Your task to perform on an android device: Open Chrome and go to settings Image 0: 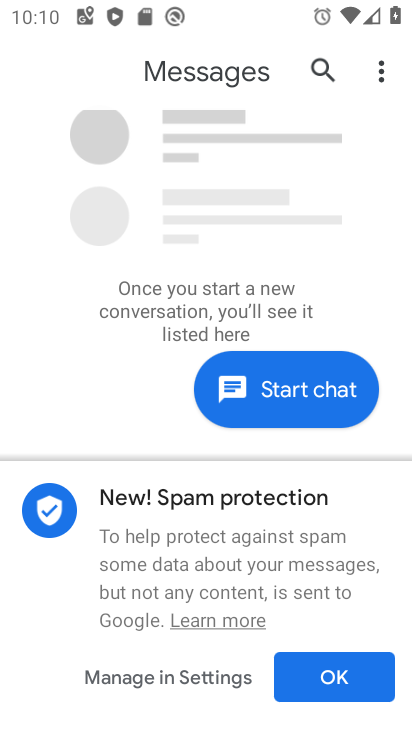
Step 0: drag from (216, 578) to (216, 257)
Your task to perform on an android device: Open Chrome and go to settings Image 1: 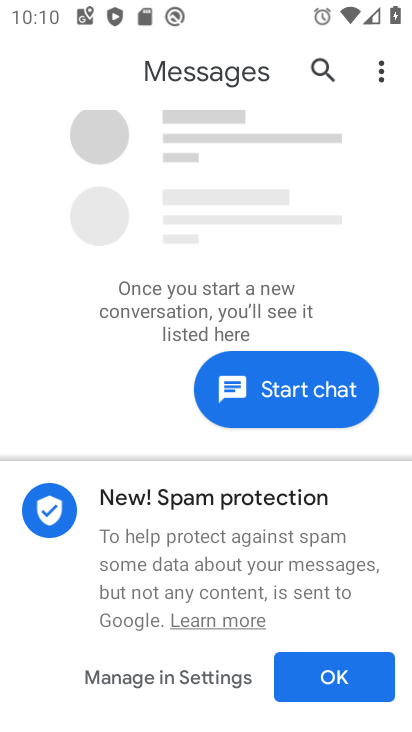
Step 1: press home button
Your task to perform on an android device: Open Chrome and go to settings Image 2: 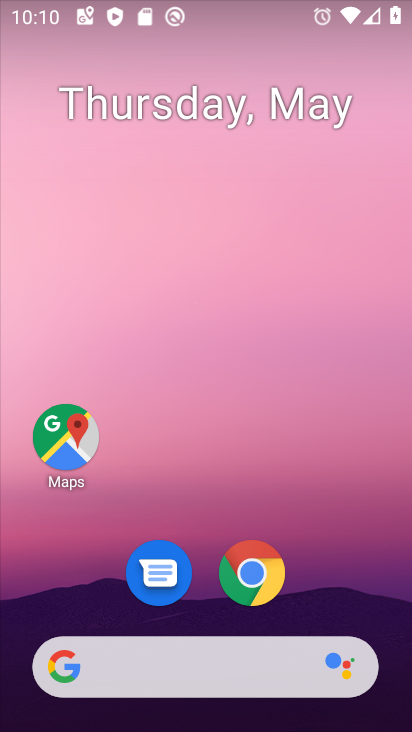
Step 2: click (256, 591)
Your task to perform on an android device: Open Chrome and go to settings Image 3: 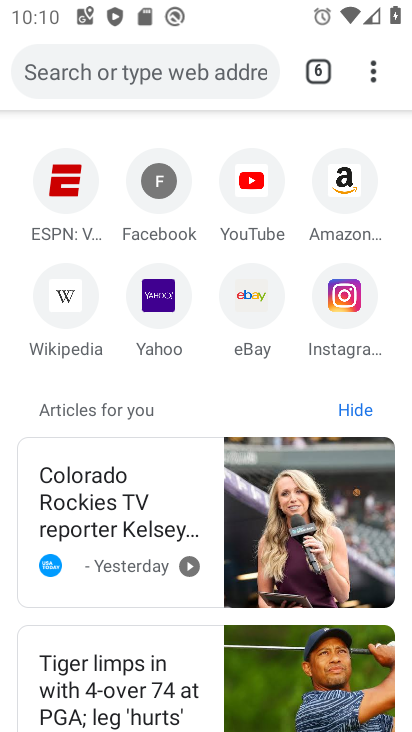
Step 3: click (364, 66)
Your task to perform on an android device: Open Chrome and go to settings Image 4: 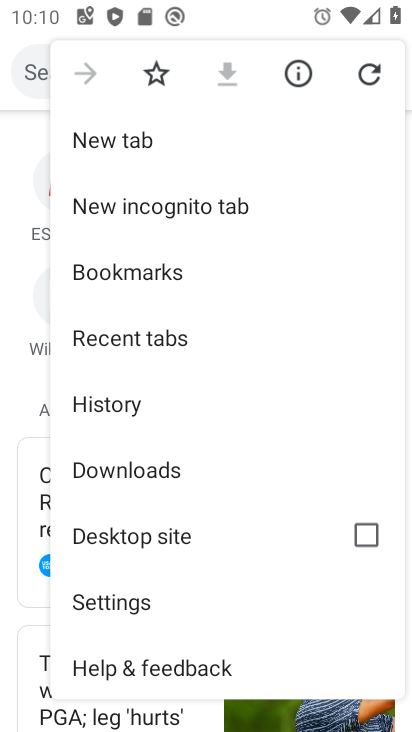
Step 4: click (162, 594)
Your task to perform on an android device: Open Chrome and go to settings Image 5: 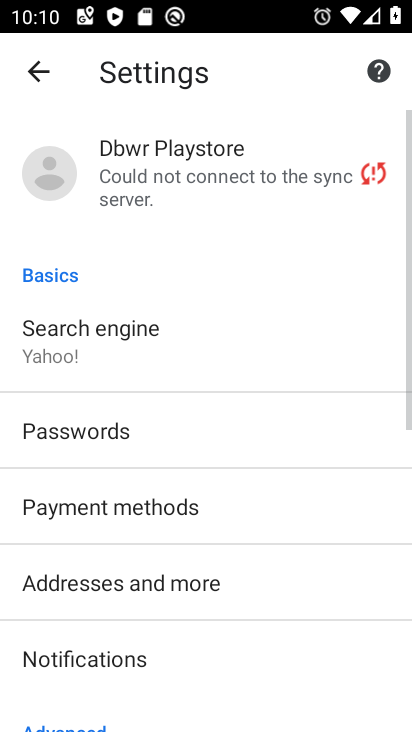
Step 5: task complete